Your task to perform on an android device: Go to Amazon Image 0: 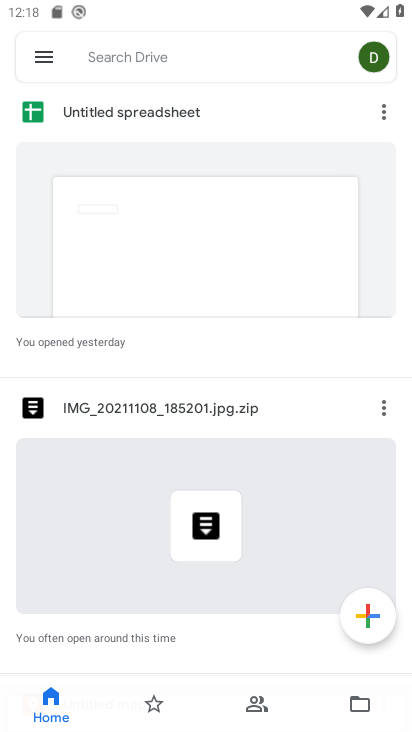
Step 0: press home button
Your task to perform on an android device: Go to Amazon Image 1: 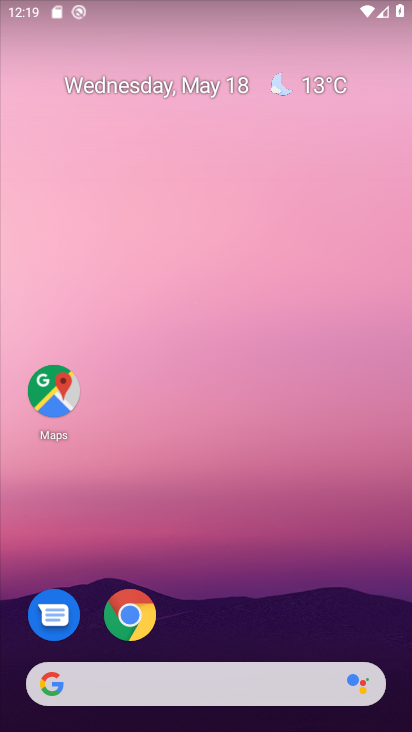
Step 1: click (128, 614)
Your task to perform on an android device: Go to Amazon Image 2: 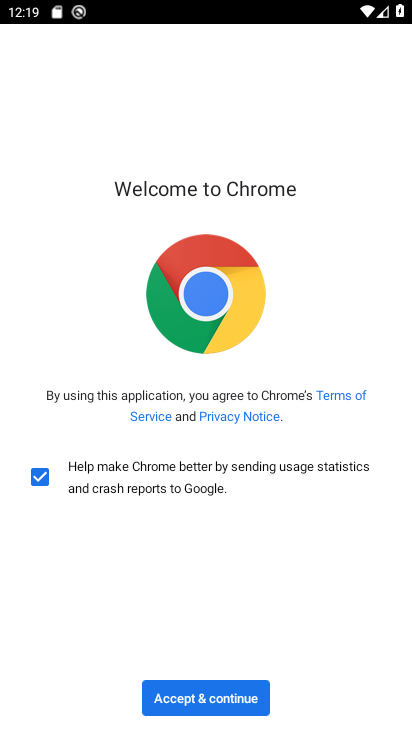
Step 2: click (207, 703)
Your task to perform on an android device: Go to Amazon Image 3: 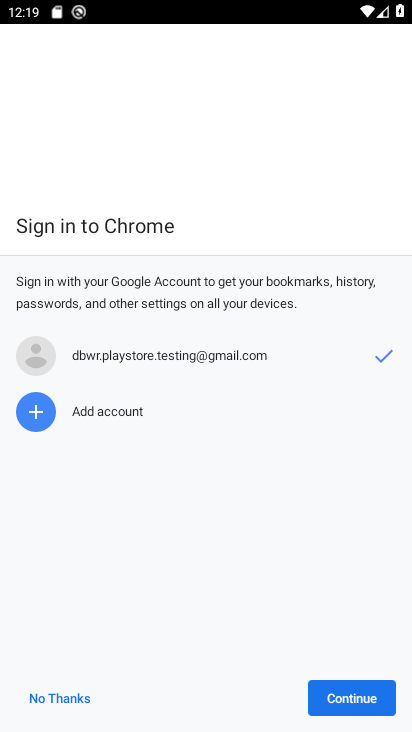
Step 3: click (364, 689)
Your task to perform on an android device: Go to Amazon Image 4: 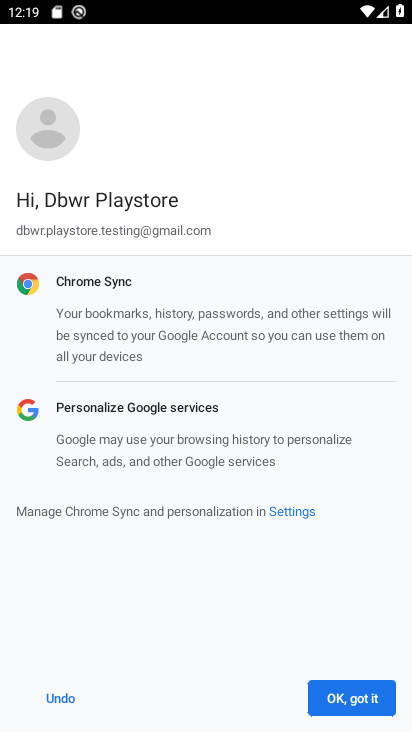
Step 4: click (363, 691)
Your task to perform on an android device: Go to Amazon Image 5: 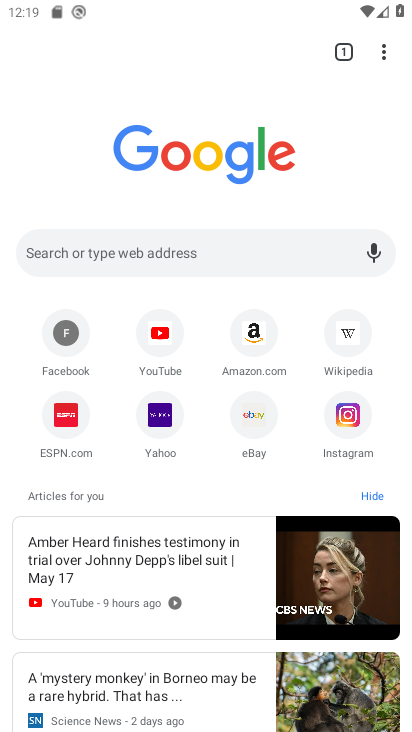
Step 5: type "Amazon"
Your task to perform on an android device: Go to Amazon Image 6: 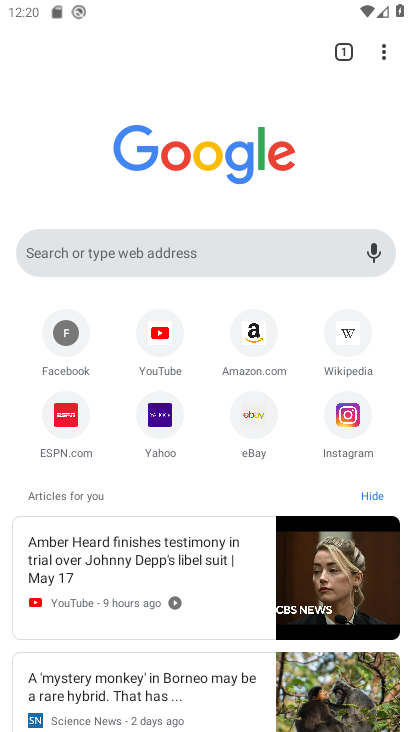
Step 6: click (264, 338)
Your task to perform on an android device: Go to Amazon Image 7: 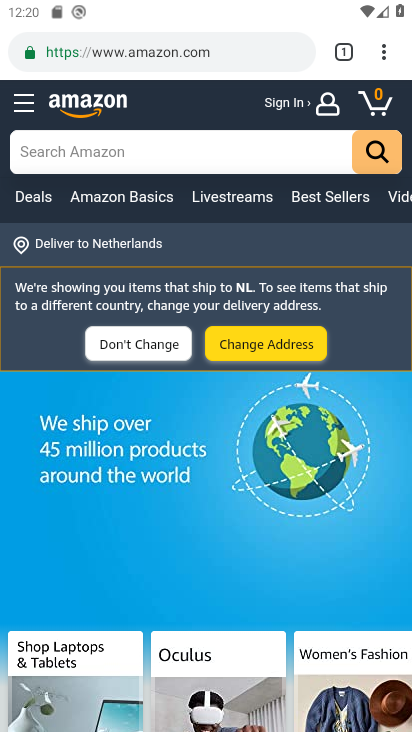
Step 7: task complete